Your task to perform on an android device: Open the camera Image 0: 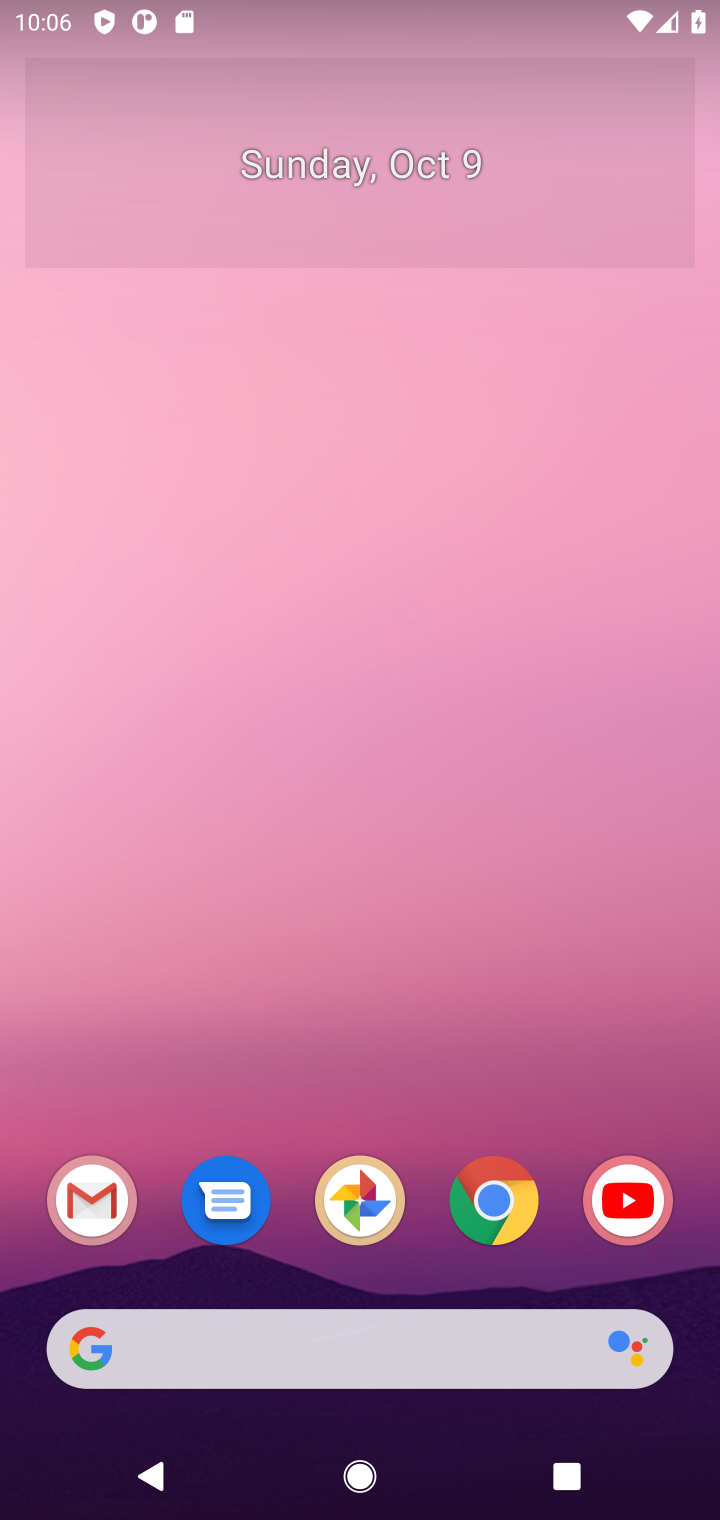
Step 0: click (547, 195)
Your task to perform on an android device: Open the camera Image 1: 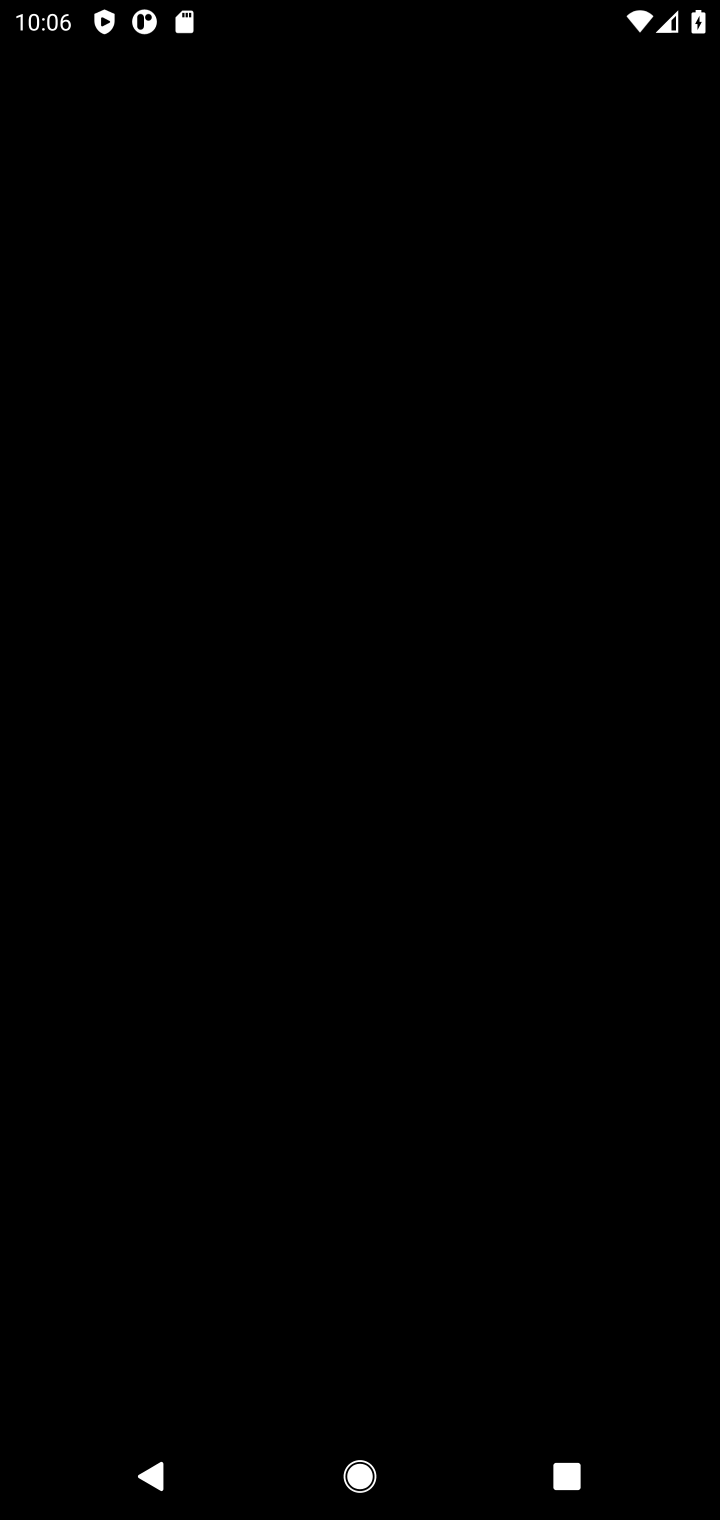
Step 1: press home button
Your task to perform on an android device: Open the camera Image 2: 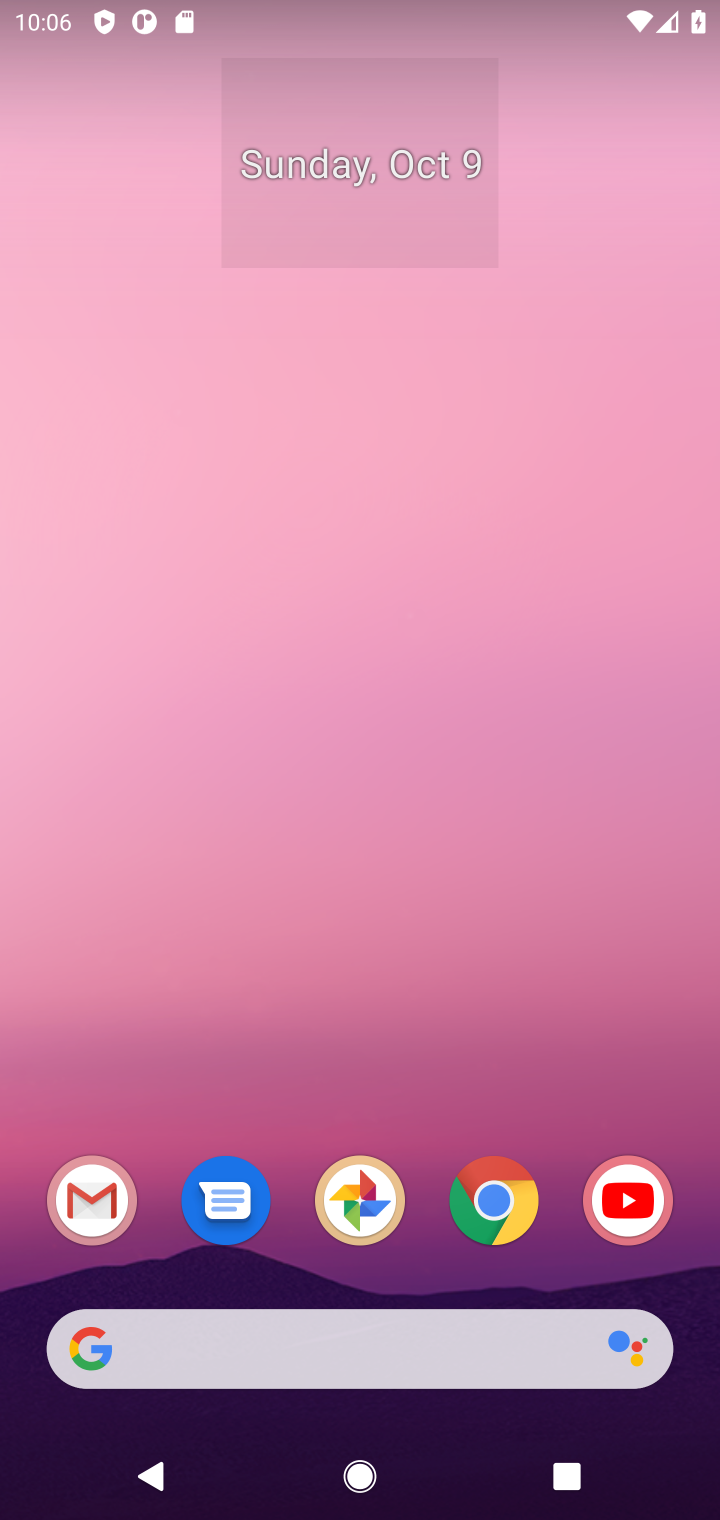
Step 2: drag from (343, 1332) to (94, 199)
Your task to perform on an android device: Open the camera Image 3: 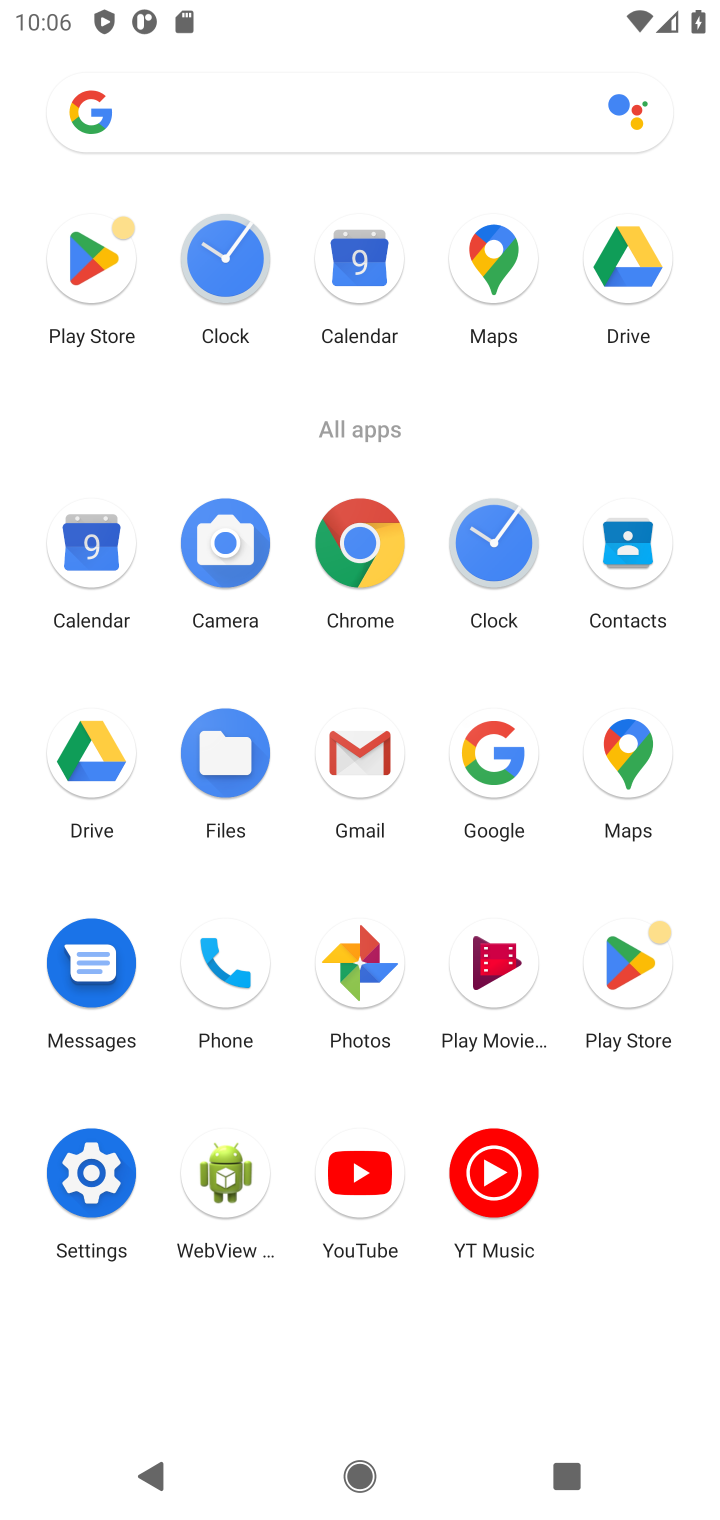
Step 3: click (241, 545)
Your task to perform on an android device: Open the camera Image 4: 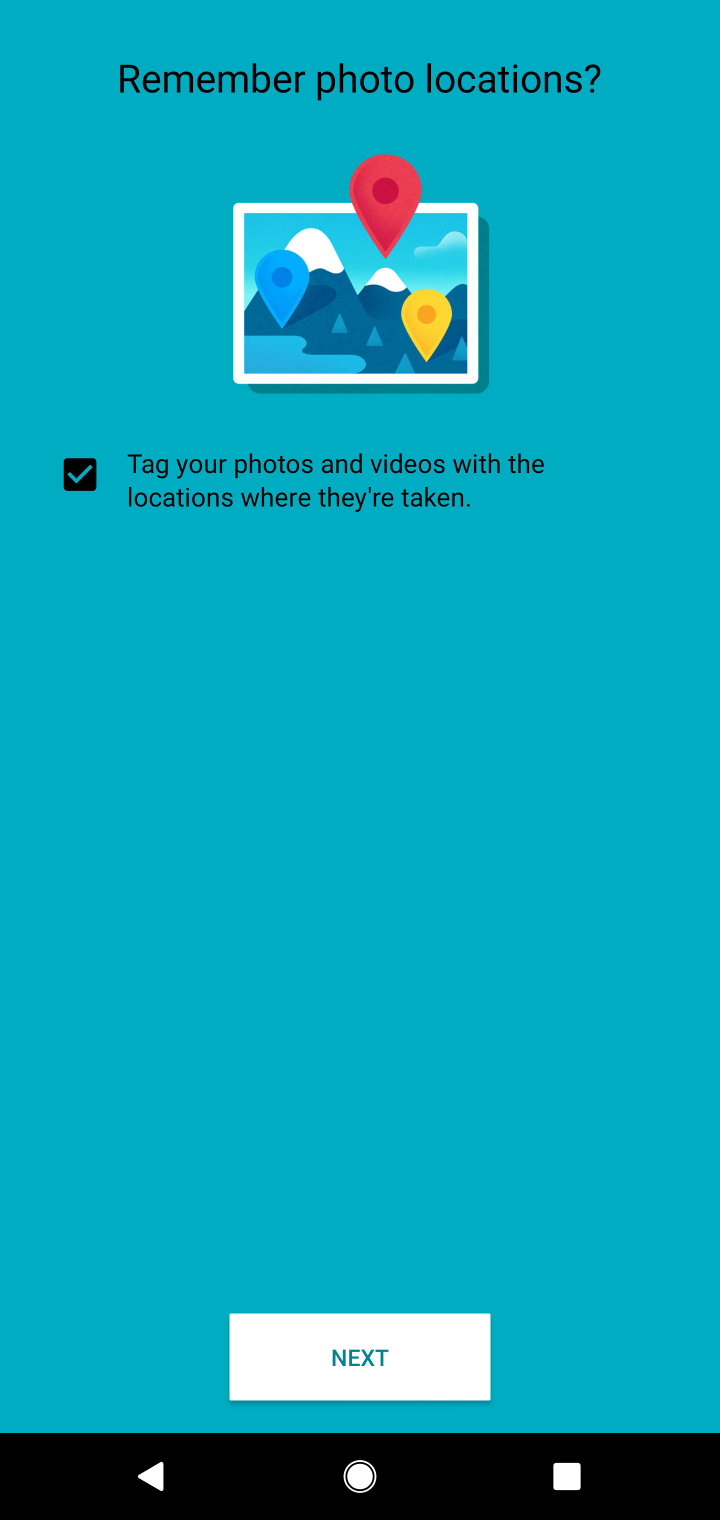
Step 4: task complete